Your task to perform on an android device: Open maps Image 0: 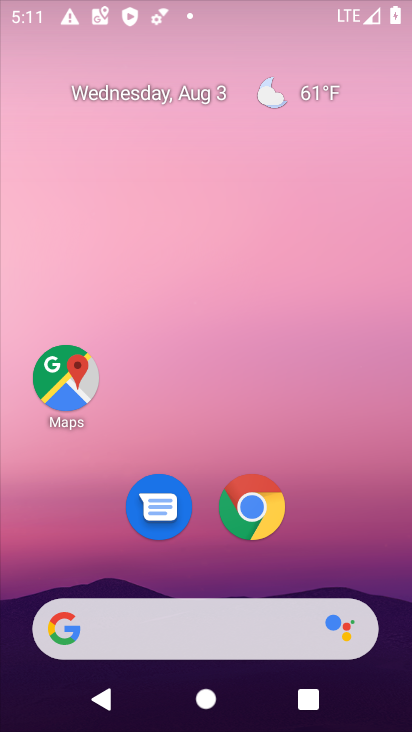
Step 0: drag from (356, 495) to (382, 50)
Your task to perform on an android device: Open maps Image 1: 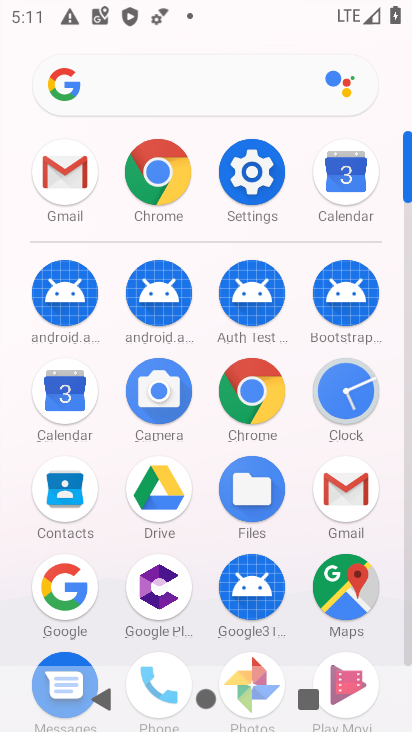
Step 1: click (350, 572)
Your task to perform on an android device: Open maps Image 2: 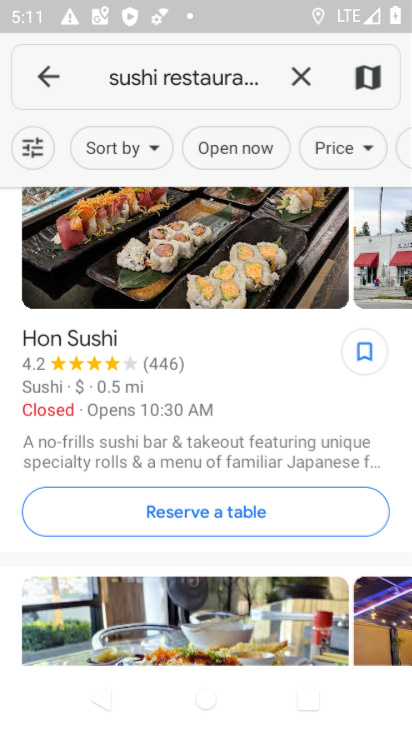
Step 2: click (218, 80)
Your task to perform on an android device: Open maps Image 3: 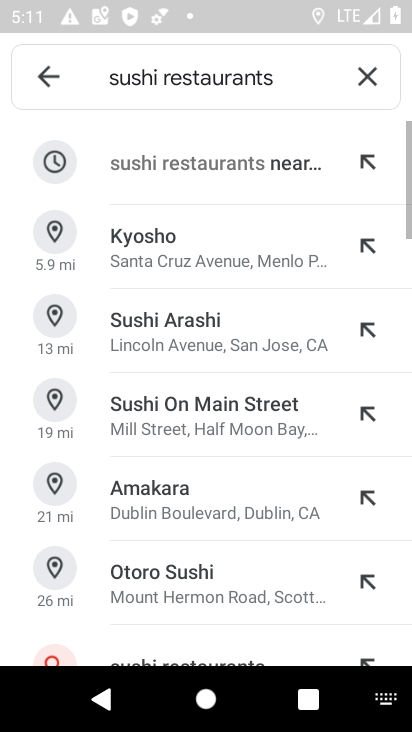
Step 3: click (46, 68)
Your task to perform on an android device: Open maps Image 4: 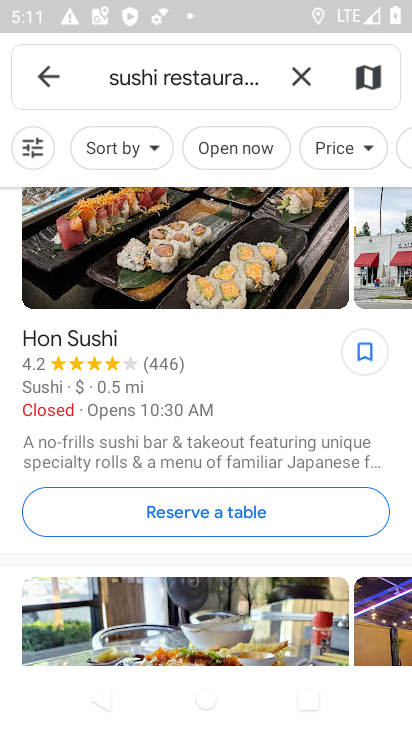
Step 4: task complete